Your task to perform on an android device: What is the news today? Image 0: 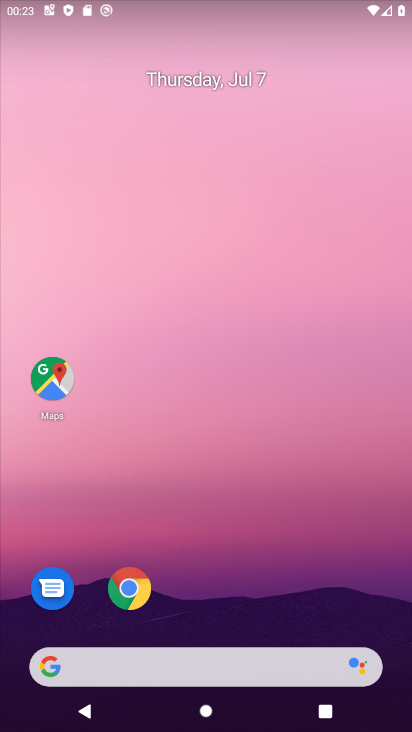
Step 0: drag from (2, 246) to (114, 248)
Your task to perform on an android device: What is the news today? Image 1: 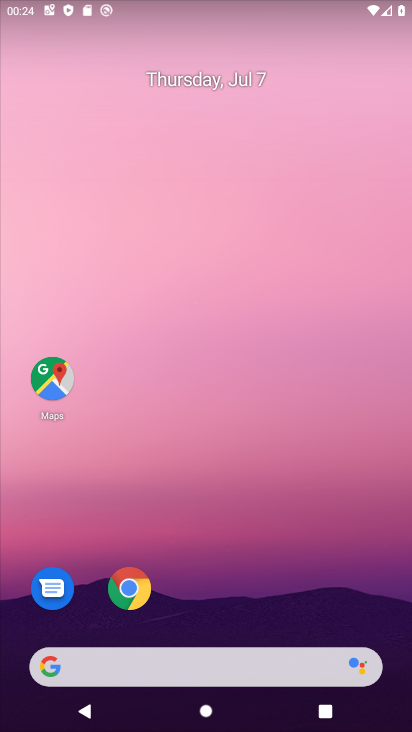
Step 1: drag from (245, 675) to (228, 139)
Your task to perform on an android device: What is the news today? Image 2: 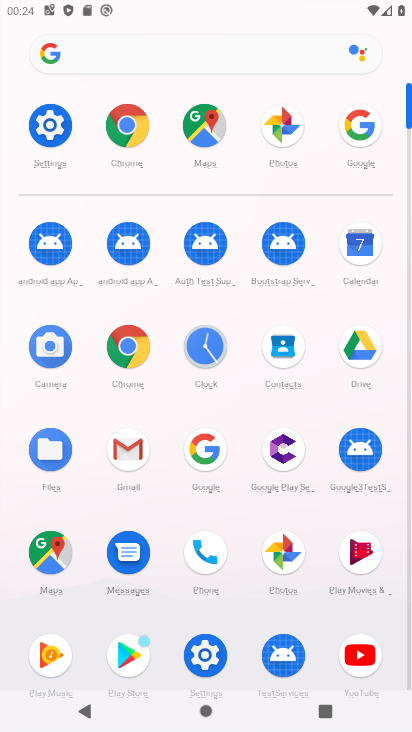
Step 2: click (200, 452)
Your task to perform on an android device: What is the news today? Image 3: 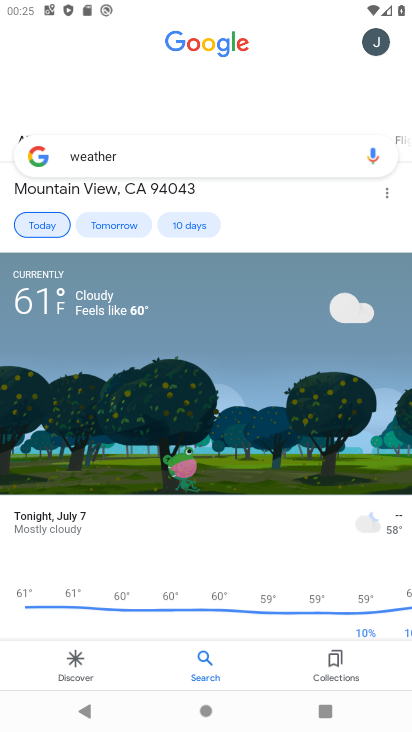
Step 3: click (219, 616)
Your task to perform on an android device: What is the news today? Image 4: 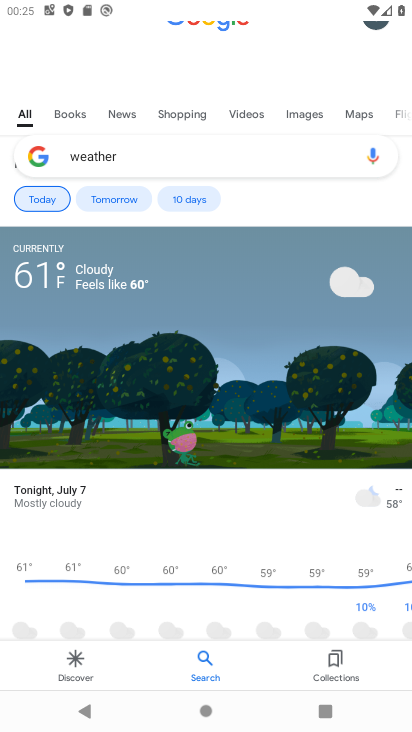
Step 4: click (213, 236)
Your task to perform on an android device: What is the news today? Image 5: 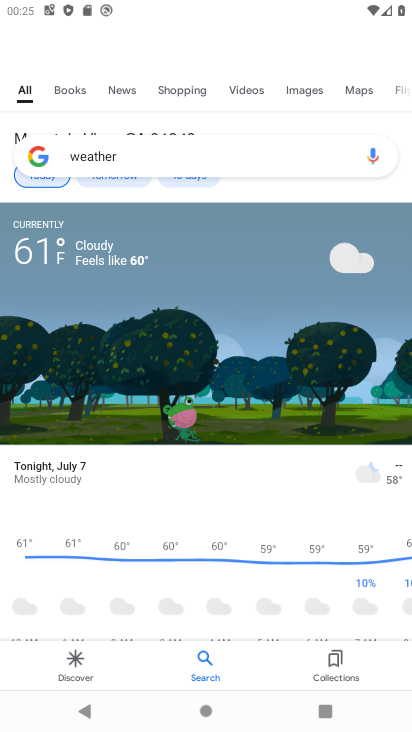
Step 5: click (69, 662)
Your task to perform on an android device: What is the news today? Image 6: 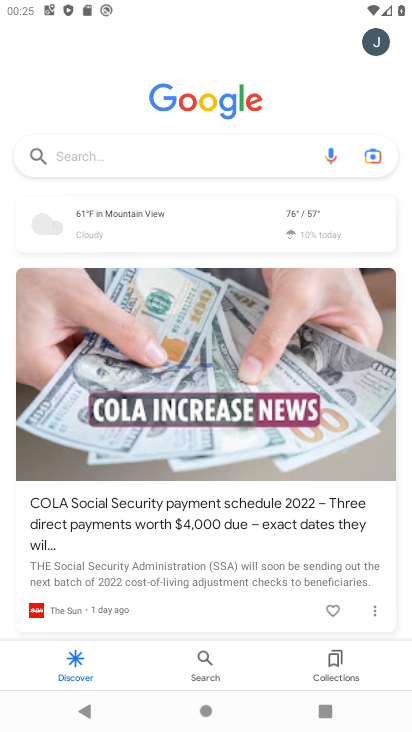
Step 6: task complete